Your task to perform on an android device: Open Google Maps and go to "Timeline" Image 0: 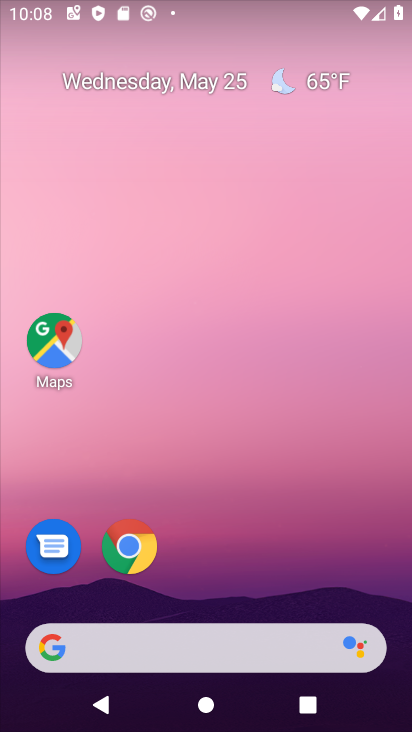
Step 0: drag from (283, 560) to (232, 52)
Your task to perform on an android device: Open Google Maps and go to "Timeline" Image 1: 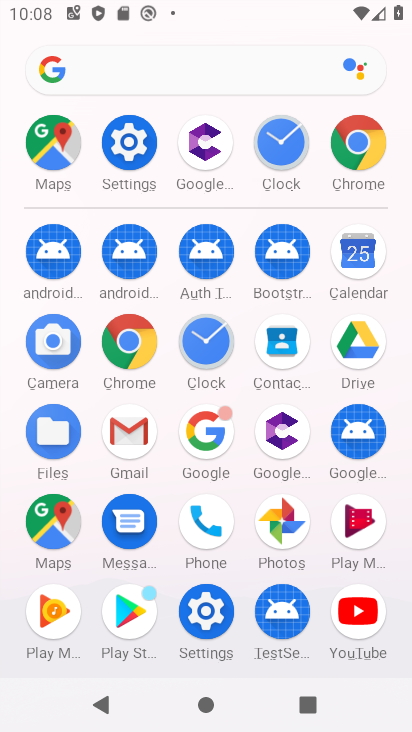
Step 1: drag from (11, 599) to (18, 212)
Your task to perform on an android device: Open Google Maps and go to "Timeline" Image 2: 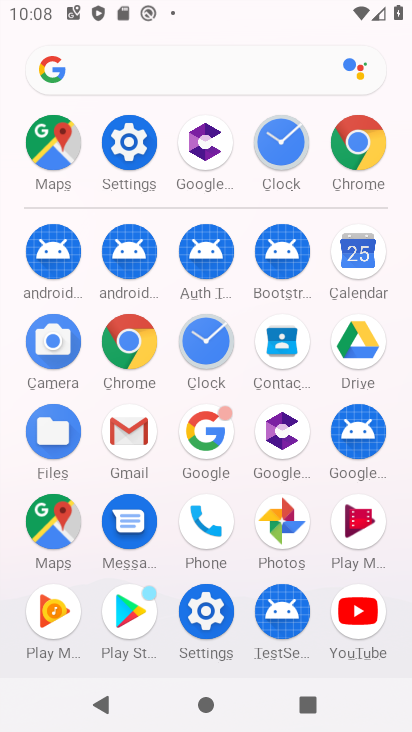
Step 2: click (51, 521)
Your task to perform on an android device: Open Google Maps and go to "Timeline" Image 3: 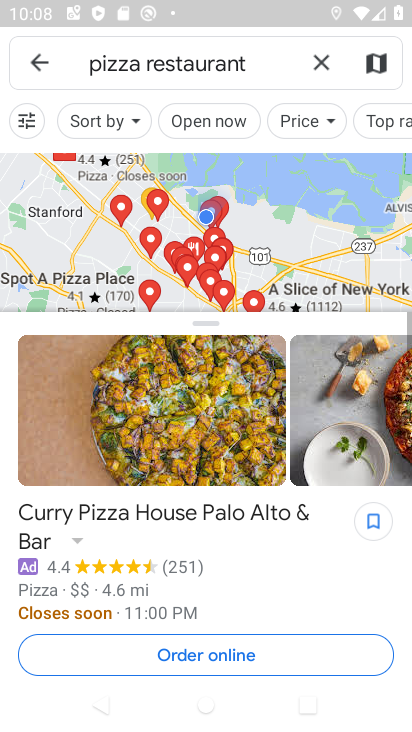
Step 3: click (48, 56)
Your task to perform on an android device: Open Google Maps and go to "Timeline" Image 4: 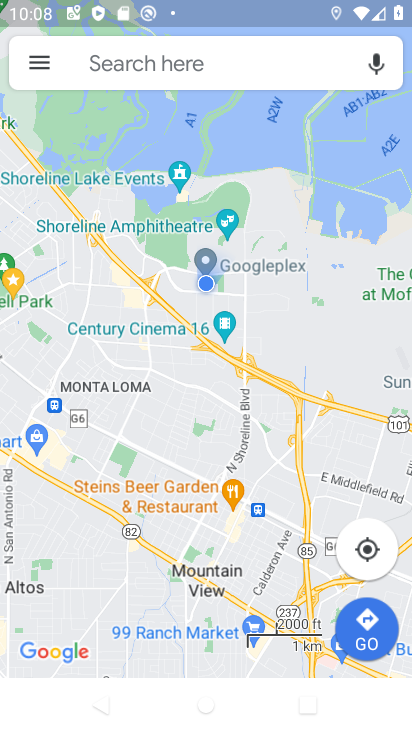
Step 4: click (48, 56)
Your task to perform on an android device: Open Google Maps and go to "Timeline" Image 5: 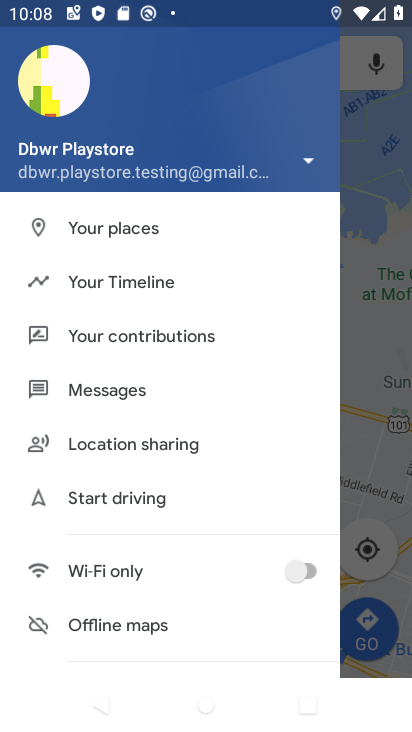
Step 5: click (161, 285)
Your task to perform on an android device: Open Google Maps and go to "Timeline" Image 6: 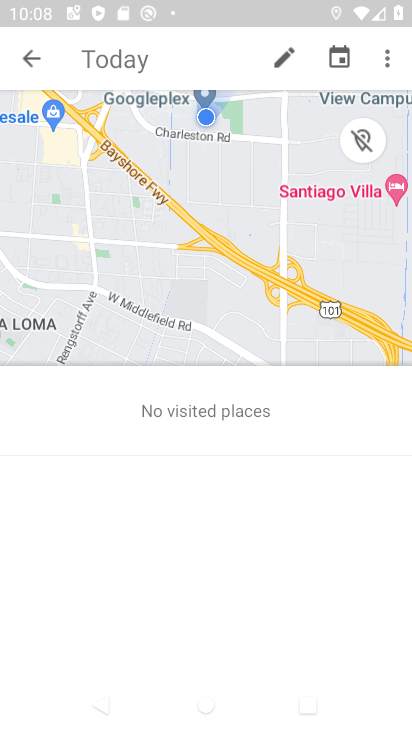
Step 6: click (33, 45)
Your task to perform on an android device: Open Google Maps and go to "Timeline" Image 7: 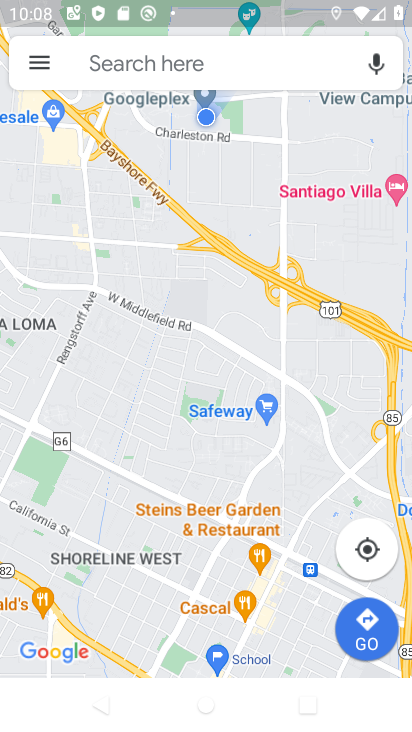
Step 7: click (33, 45)
Your task to perform on an android device: Open Google Maps and go to "Timeline" Image 8: 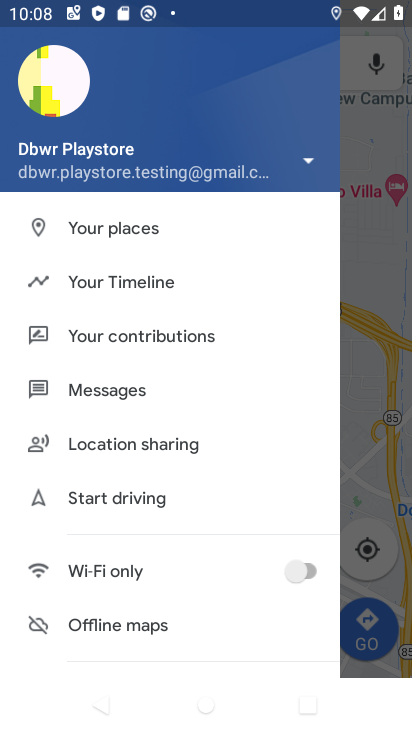
Step 8: click (113, 287)
Your task to perform on an android device: Open Google Maps and go to "Timeline" Image 9: 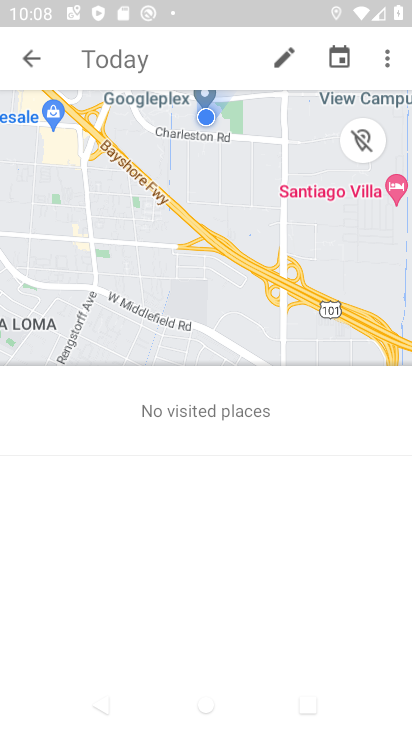
Step 9: task complete